Your task to perform on an android device: Add "beats solo 3" to the cart on target Image 0: 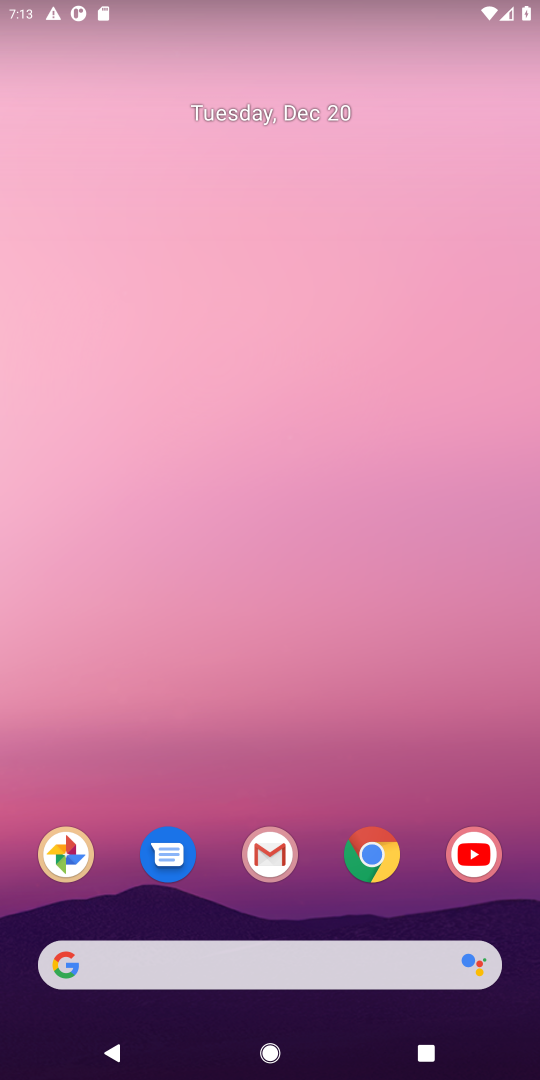
Step 0: click (368, 866)
Your task to perform on an android device: Add "beats solo 3" to the cart on target Image 1: 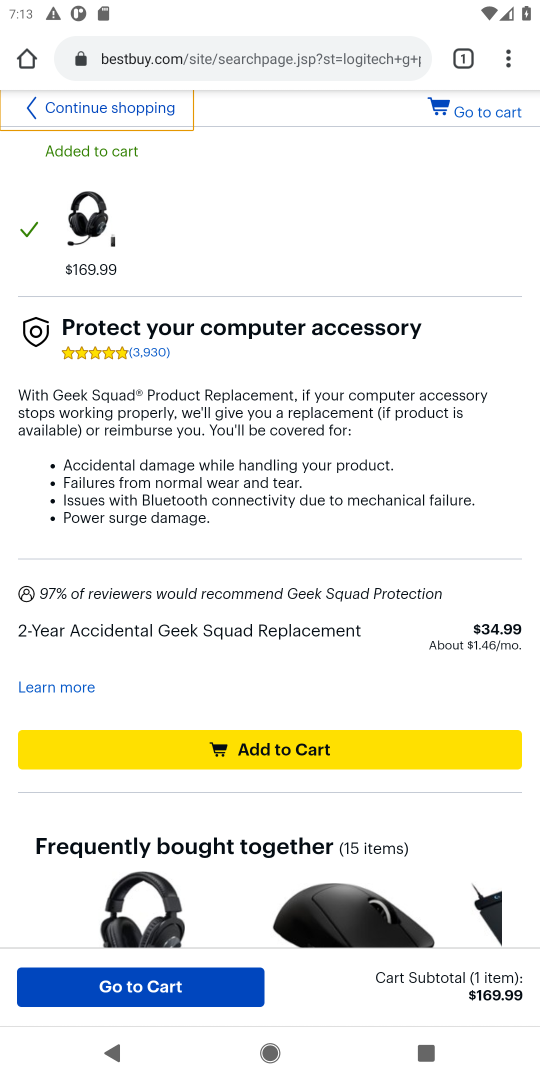
Step 1: click (192, 63)
Your task to perform on an android device: Add "beats solo 3" to the cart on target Image 2: 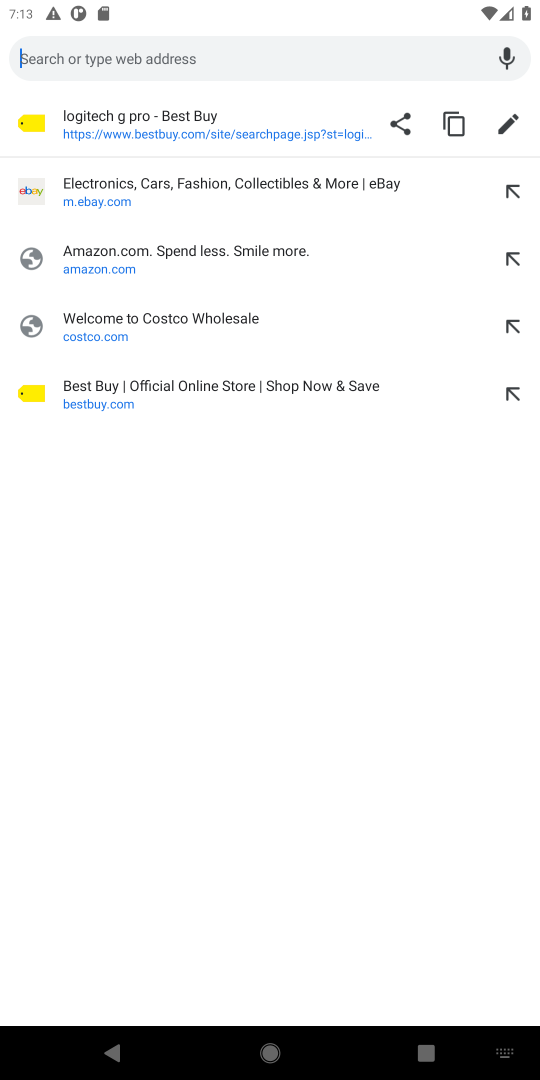
Step 2: type "target.com"
Your task to perform on an android device: Add "beats solo 3" to the cart on target Image 3: 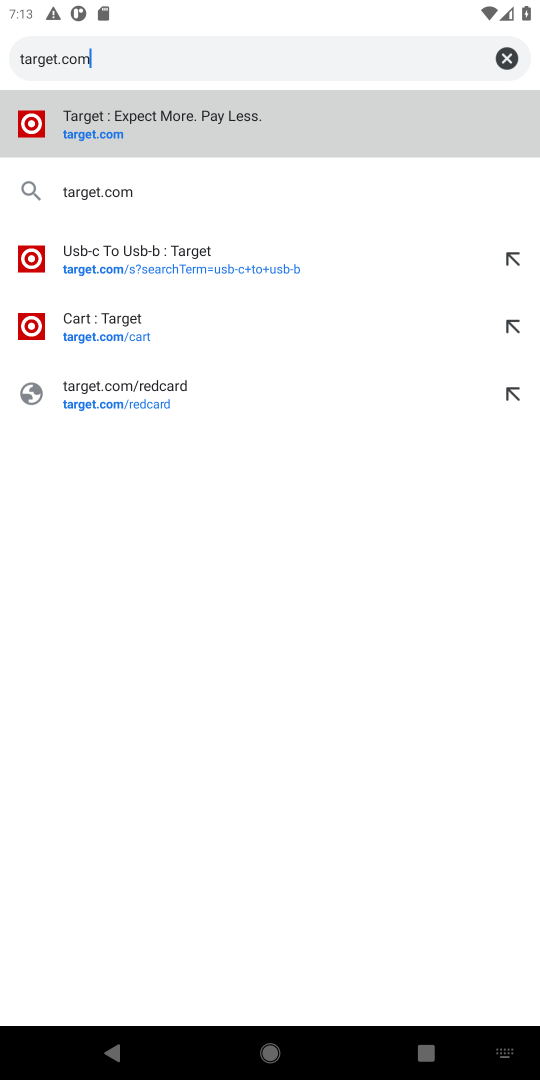
Step 3: click (105, 135)
Your task to perform on an android device: Add "beats solo 3" to the cart on target Image 4: 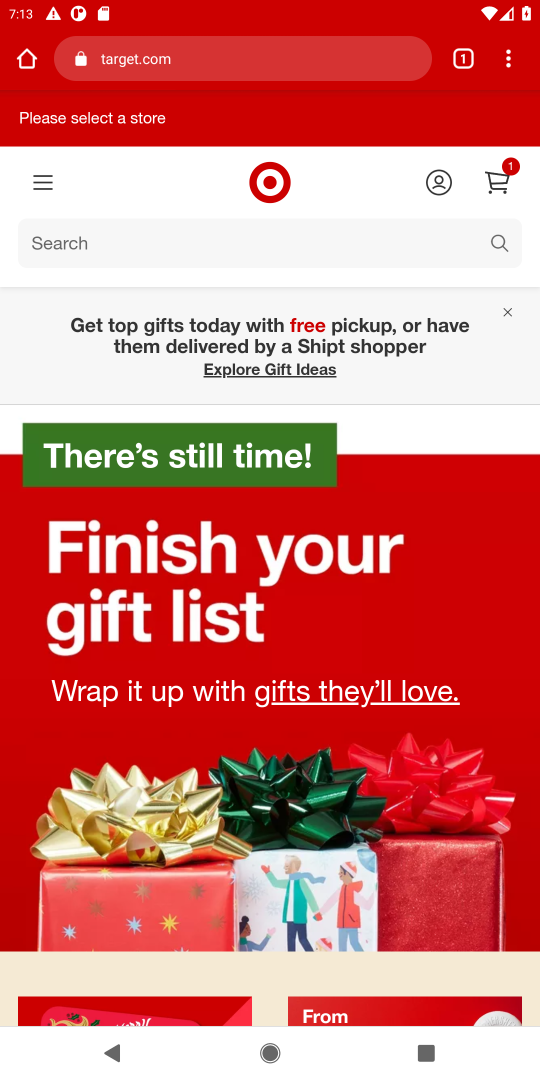
Step 4: click (76, 251)
Your task to perform on an android device: Add "beats solo 3" to the cart on target Image 5: 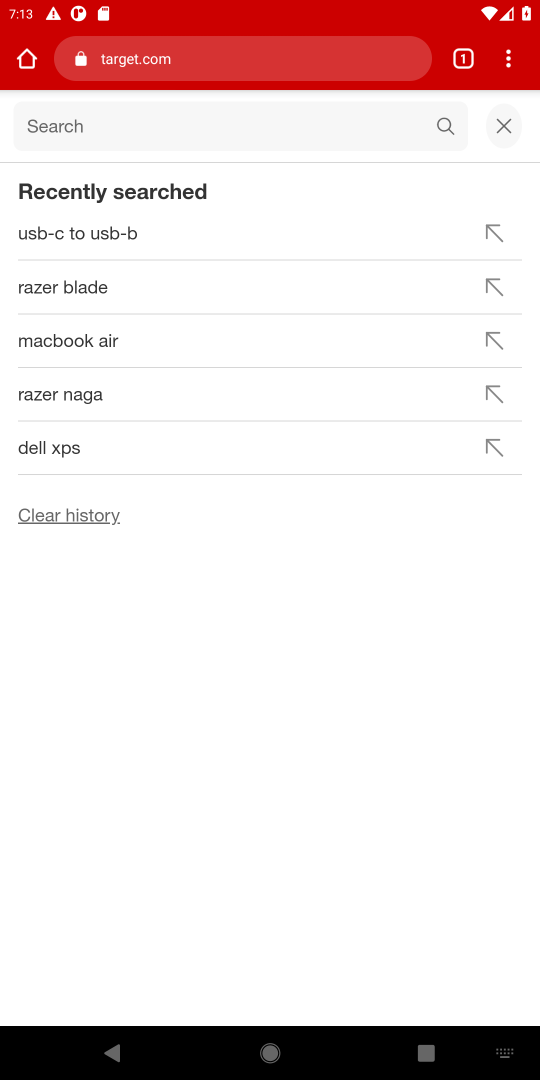
Step 5: type "beats solo 3"
Your task to perform on an android device: Add "beats solo 3" to the cart on target Image 6: 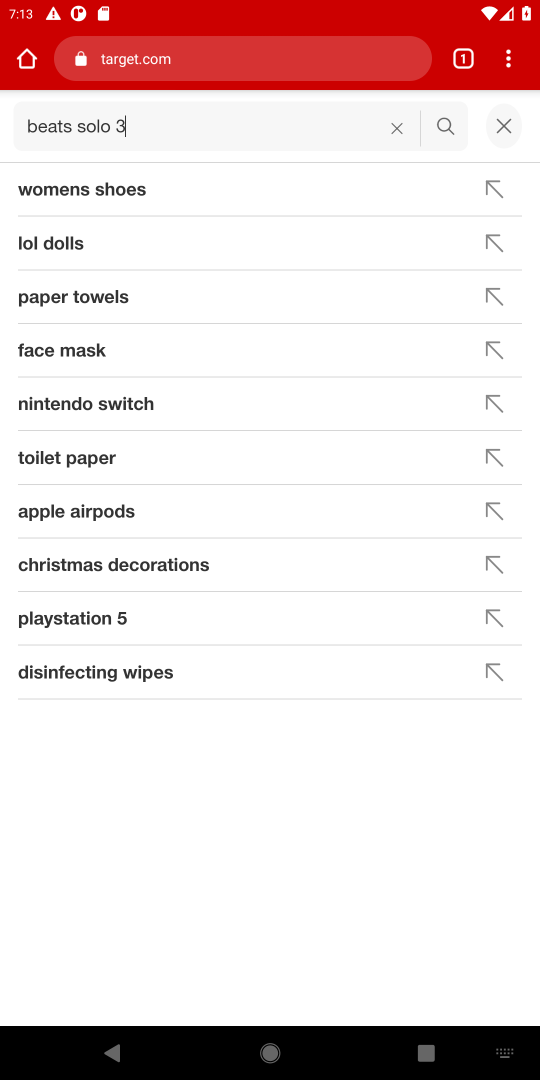
Step 6: click (440, 133)
Your task to perform on an android device: Add "beats solo 3" to the cart on target Image 7: 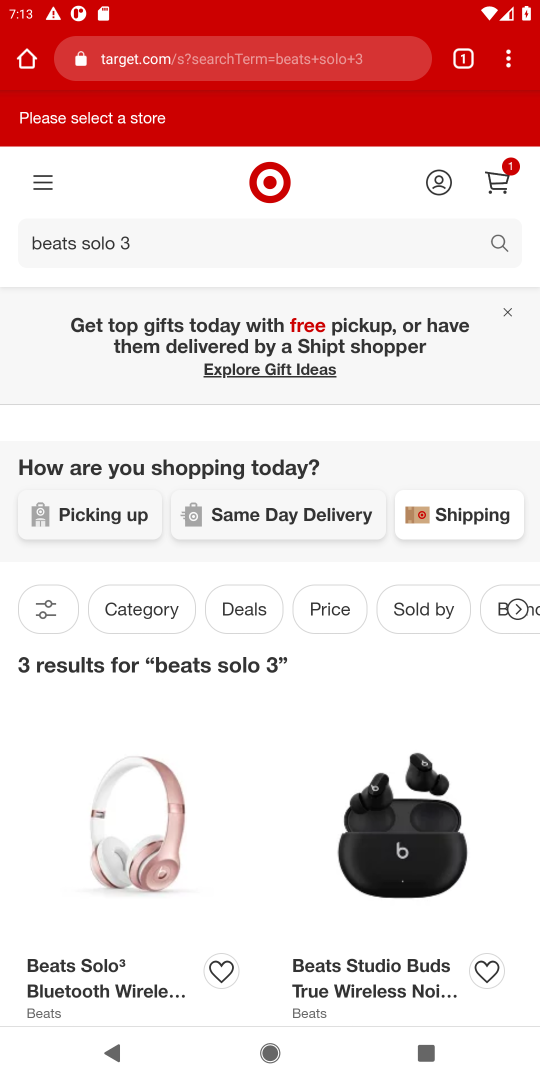
Step 7: drag from (161, 740) to (167, 424)
Your task to perform on an android device: Add "beats solo 3" to the cart on target Image 8: 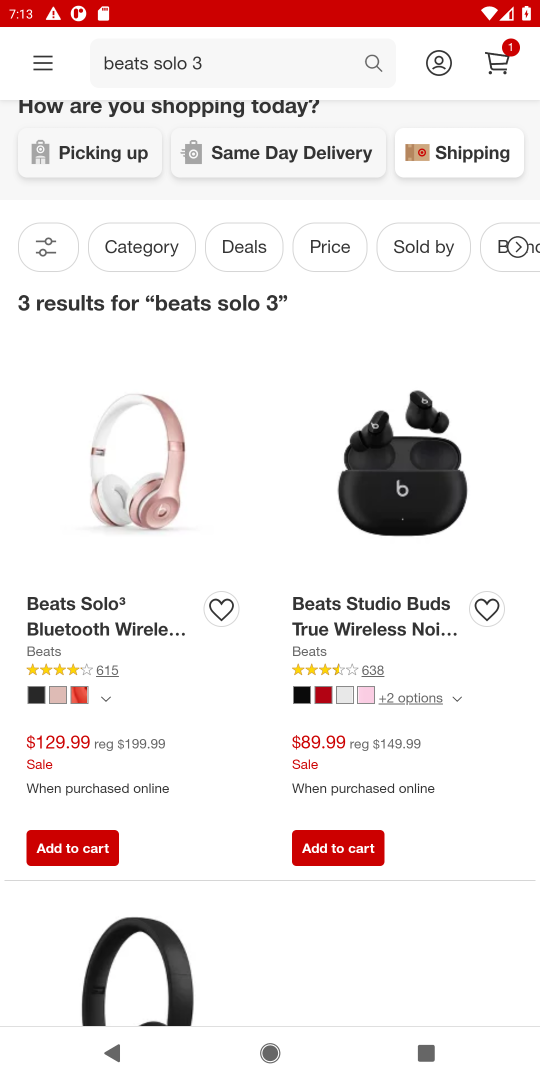
Step 8: click (57, 847)
Your task to perform on an android device: Add "beats solo 3" to the cart on target Image 9: 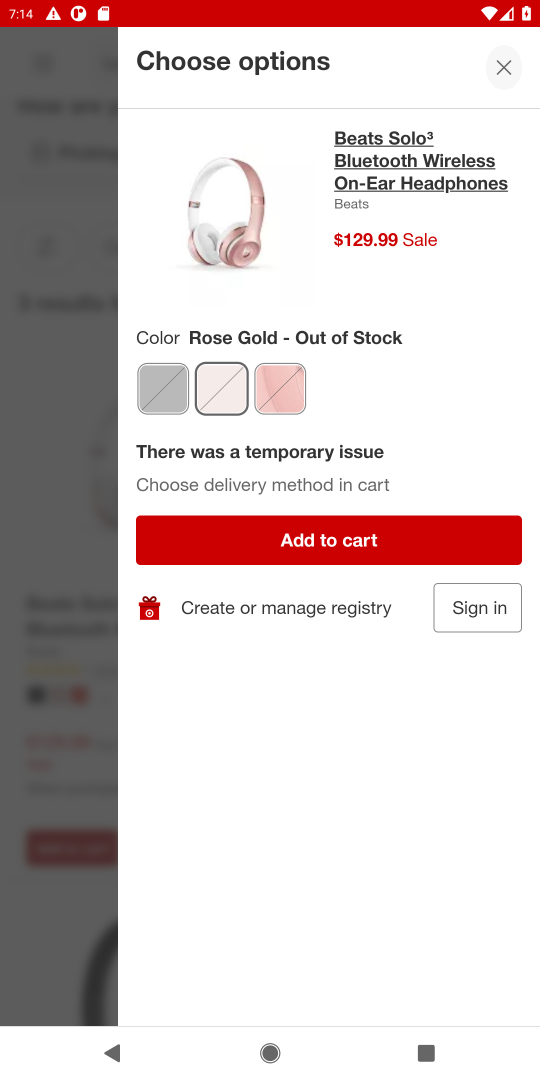
Step 9: click (316, 546)
Your task to perform on an android device: Add "beats solo 3" to the cart on target Image 10: 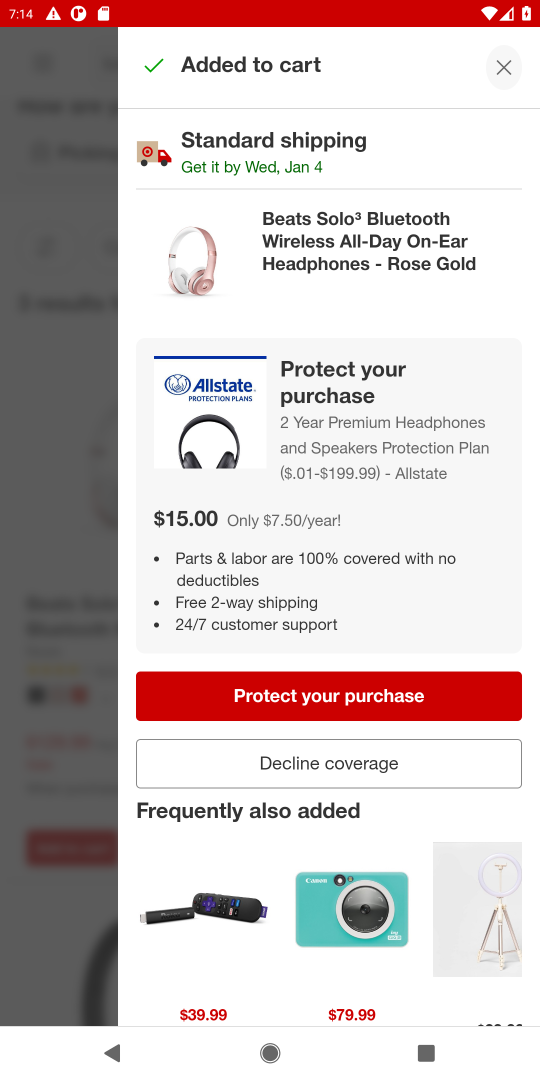
Step 10: task complete